Your task to perform on an android device: Search for seafood restaurants on Google Maps Image 0: 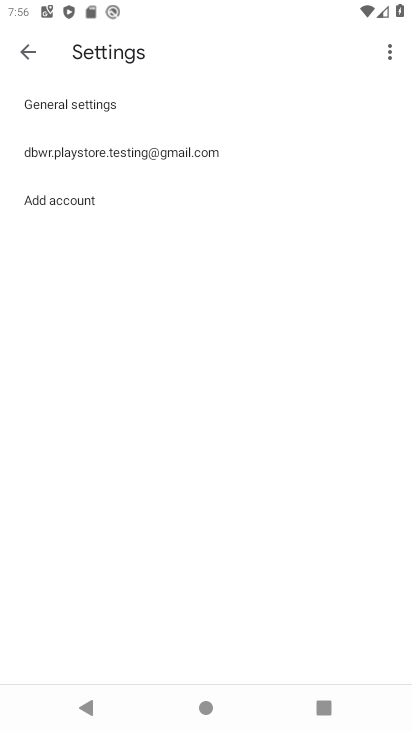
Step 0: click (25, 43)
Your task to perform on an android device: Search for seafood restaurants on Google Maps Image 1: 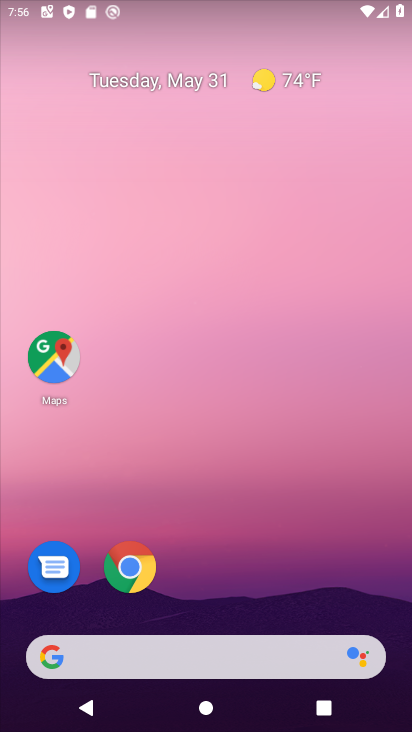
Step 1: drag from (244, 696) to (207, 203)
Your task to perform on an android device: Search for seafood restaurants on Google Maps Image 2: 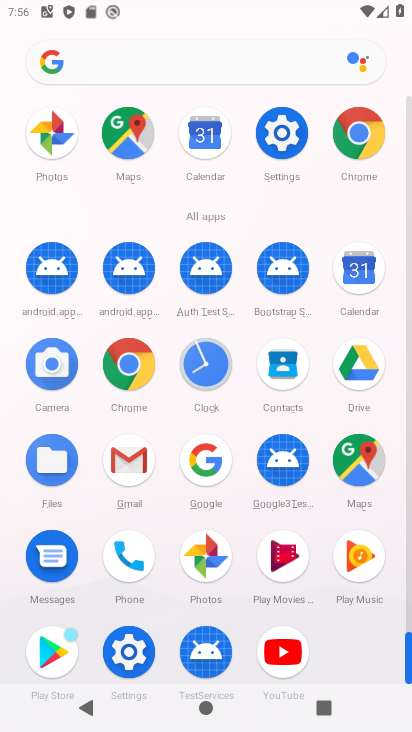
Step 2: click (367, 466)
Your task to perform on an android device: Search for seafood restaurants on Google Maps Image 3: 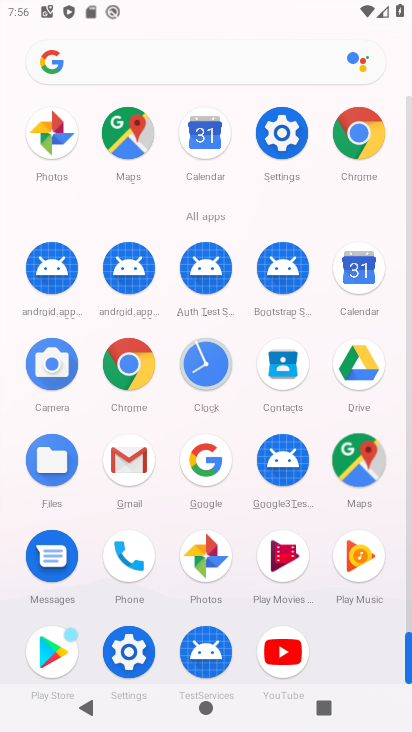
Step 3: click (367, 466)
Your task to perform on an android device: Search for seafood restaurants on Google Maps Image 4: 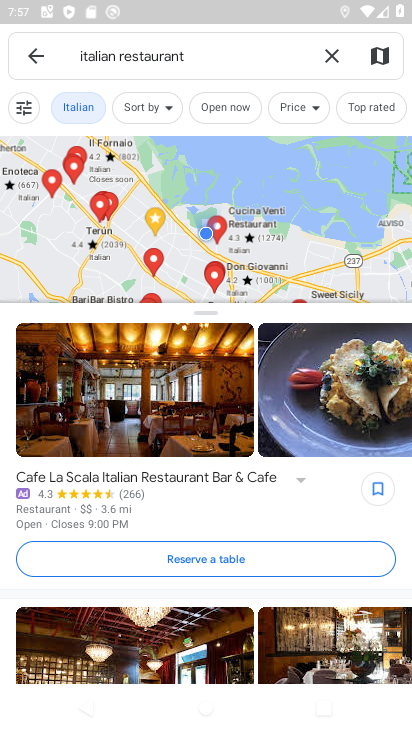
Step 4: click (332, 56)
Your task to perform on an android device: Search for seafood restaurants on Google Maps Image 5: 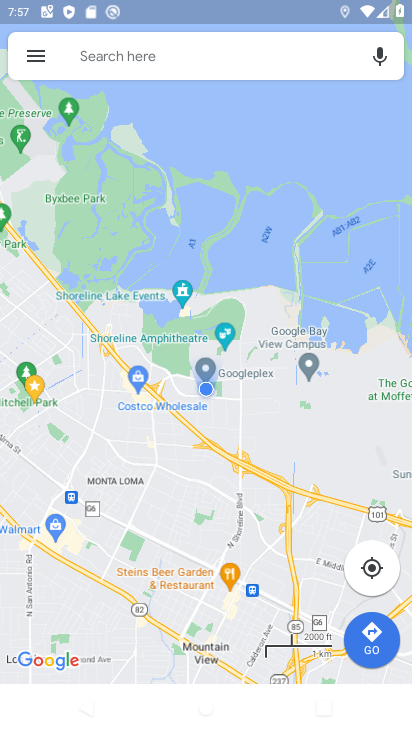
Step 5: click (76, 55)
Your task to perform on an android device: Search for seafood restaurants on Google Maps Image 6: 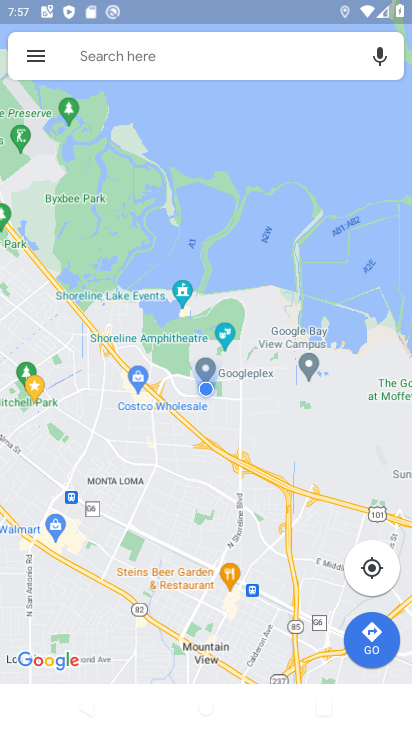
Step 6: click (74, 48)
Your task to perform on an android device: Search for seafood restaurants on Google Maps Image 7: 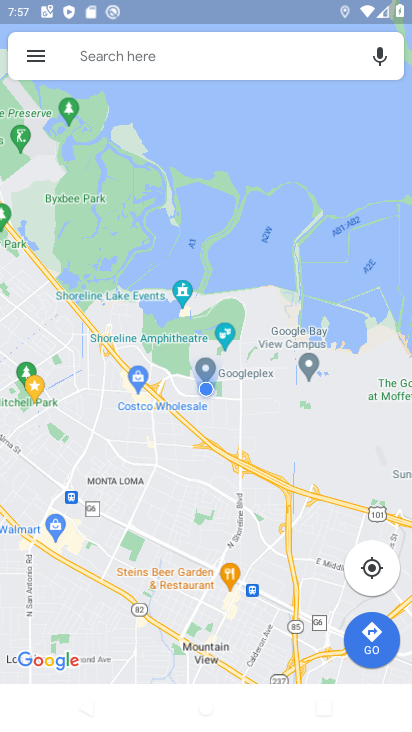
Step 7: click (0, 643)
Your task to perform on an android device: Search for seafood restaurants on Google Maps Image 8: 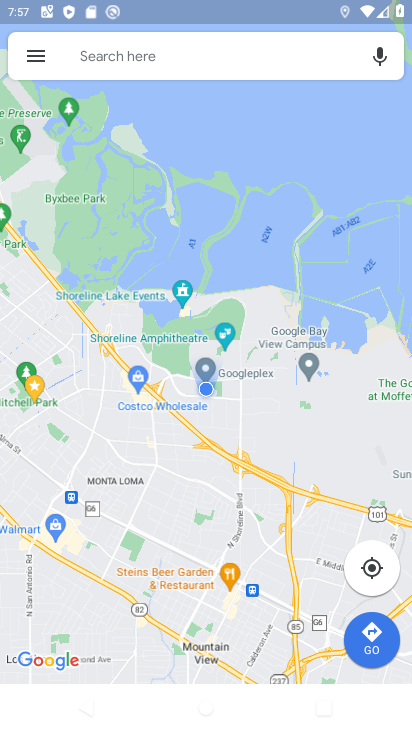
Step 8: type "seafood restaurants"
Your task to perform on an android device: Search for seafood restaurants on Google Maps Image 9: 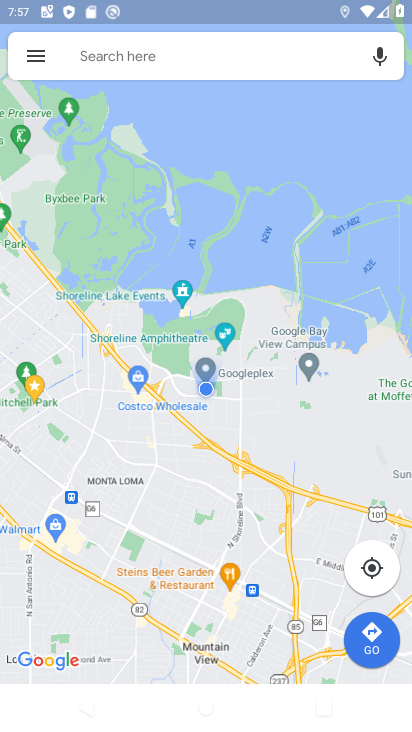
Step 9: task complete